Your task to perform on an android device: Go to battery settings Image 0: 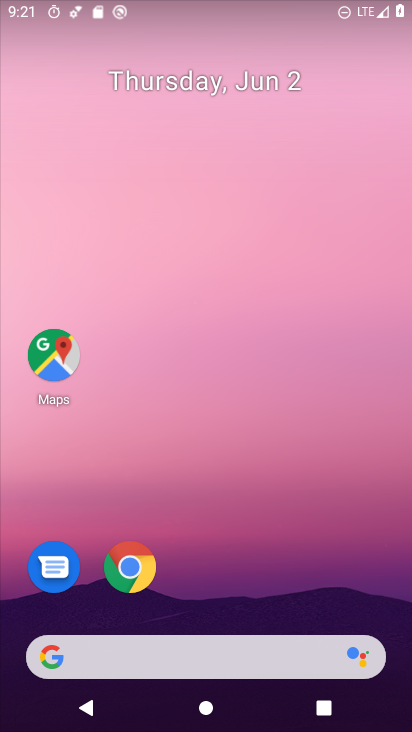
Step 0: drag from (316, 553) to (317, 147)
Your task to perform on an android device: Go to battery settings Image 1: 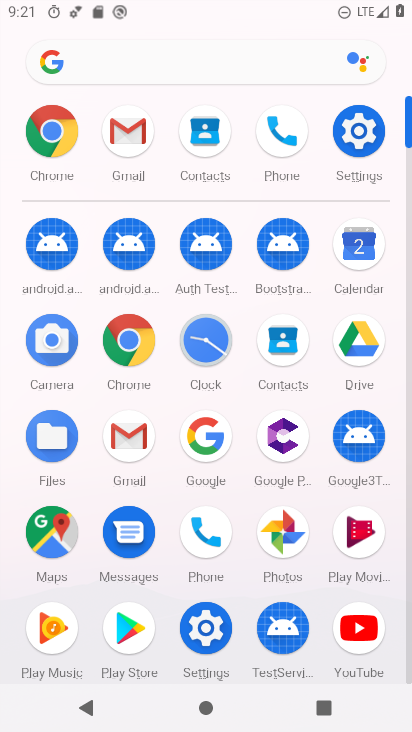
Step 1: drag from (246, 594) to (246, 312)
Your task to perform on an android device: Go to battery settings Image 2: 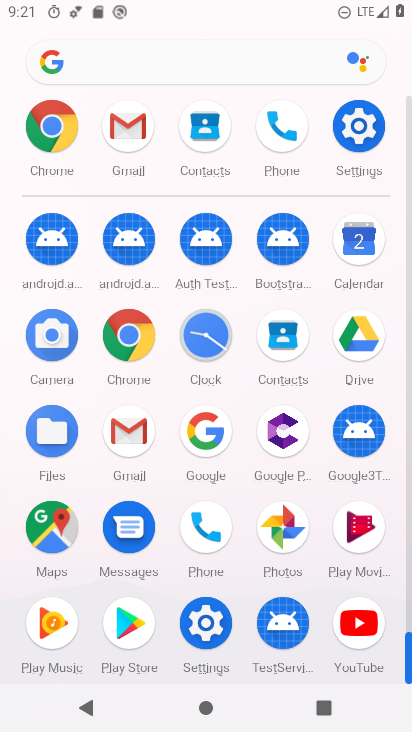
Step 2: click (199, 633)
Your task to perform on an android device: Go to battery settings Image 3: 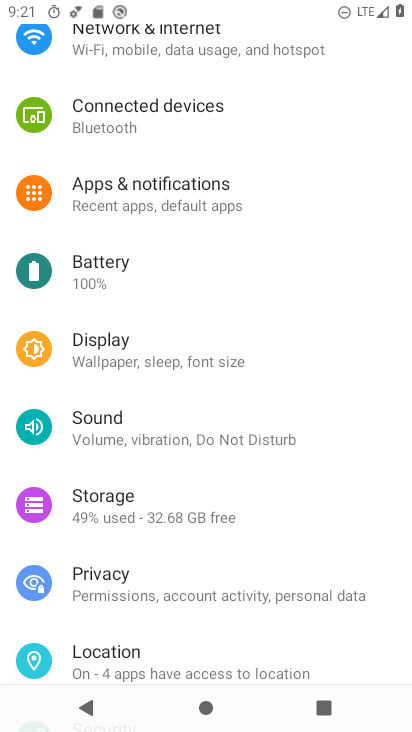
Step 3: click (180, 285)
Your task to perform on an android device: Go to battery settings Image 4: 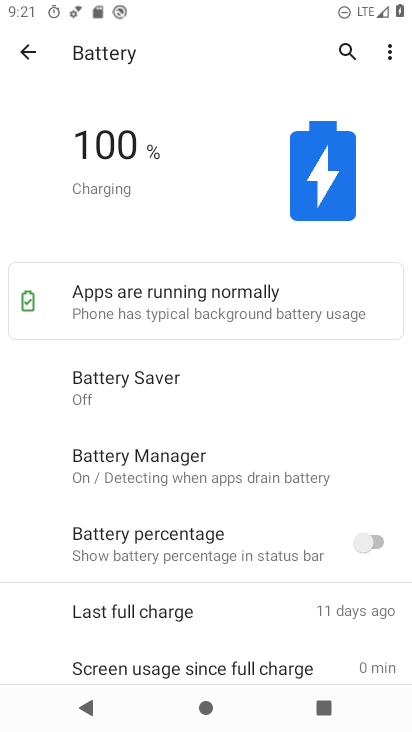
Step 4: task complete